Your task to perform on an android device: Go to location settings Image 0: 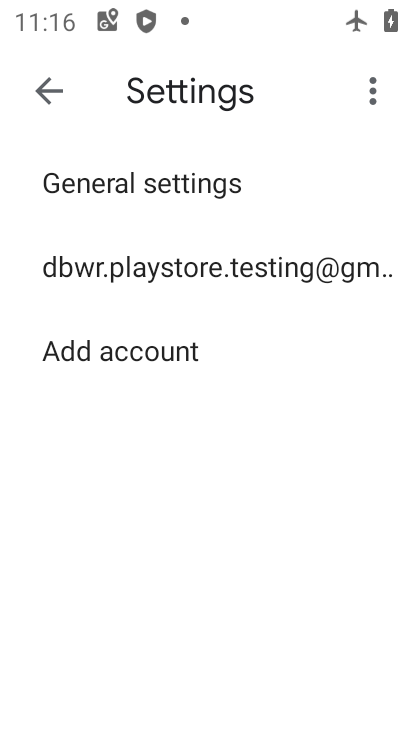
Step 0: press home button
Your task to perform on an android device: Go to location settings Image 1: 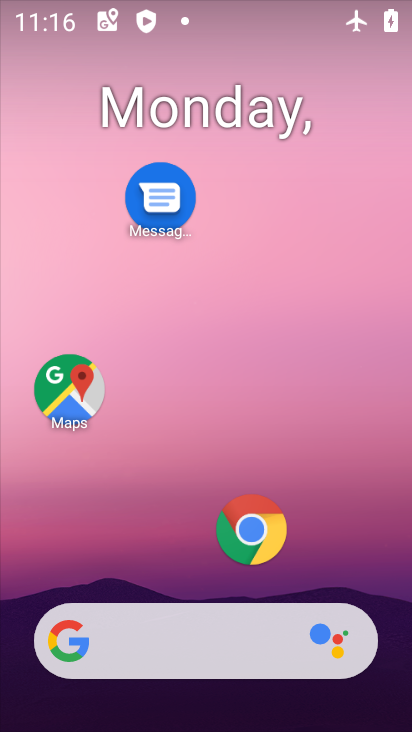
Step 1: drag from (184, 574) to (331, 104)
Your task to perform on an android device: Go to location settings Image 2: 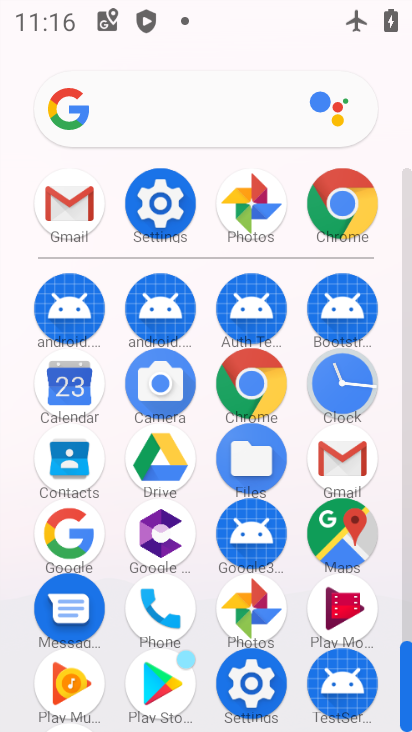
Step 2: click (249, 684)
Your task to perform on an android device: Go to location settings Image 3: 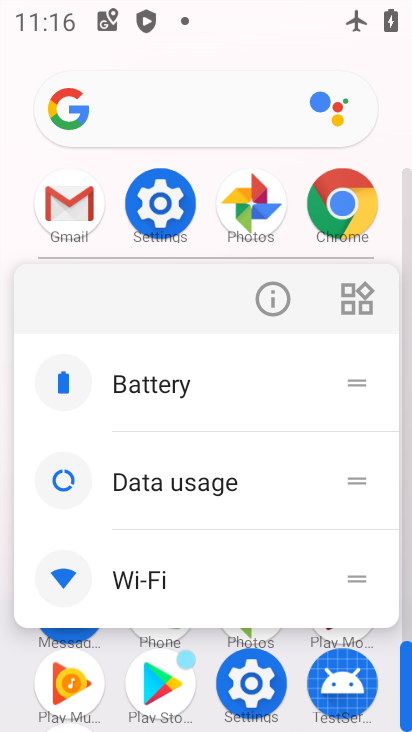
Step 3: click (250, 703)
Your task to perform on an android device: Go to location settings Image 4: 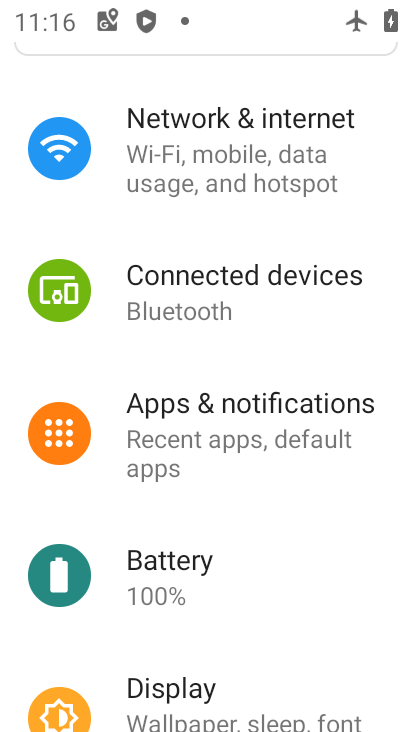
Step 4: drag from (302, 630) to (319, 219)
Your task to perform on an android device: Go to location settings Image 5: 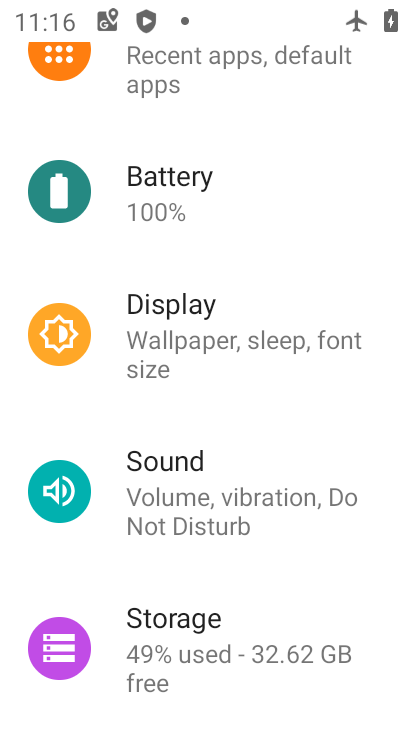
Step 5: drag from (231, 555) to (316, 237)
Your task to perform on an android device: Go to location settings Image 6: 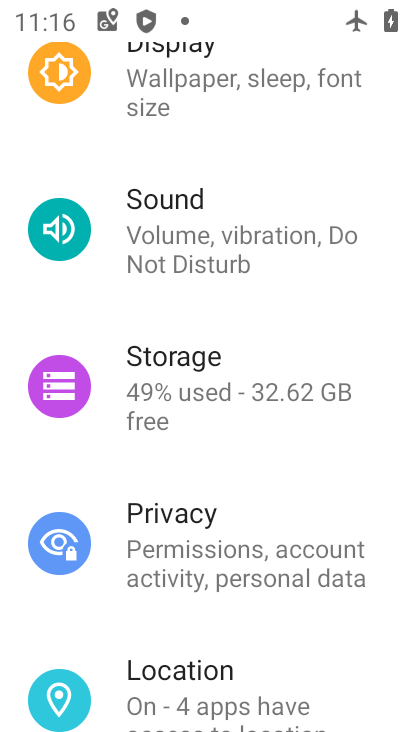
Step 6: click (231, 678)
Your task to perform on an android device: Go to location settings Image 7: 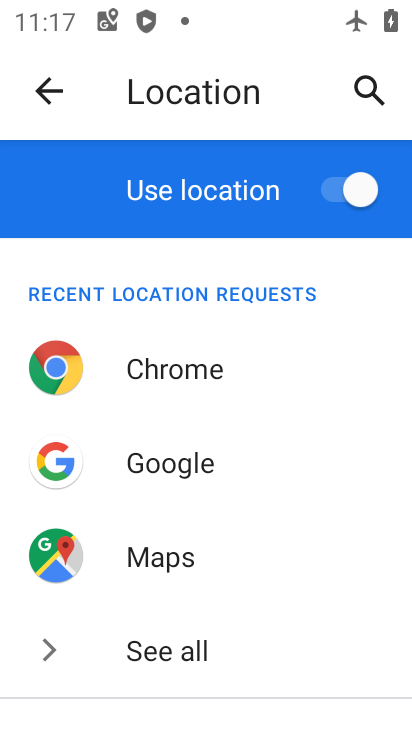
Step 7: task complete